Your task to perform on an android device: Go to CNN.com Image 0: 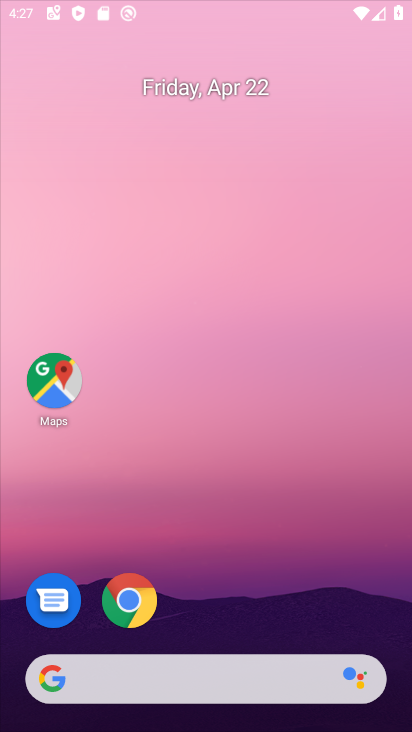
Step 0: press home button
Your task to perform on an android device: Go to CNN.com Image 1: 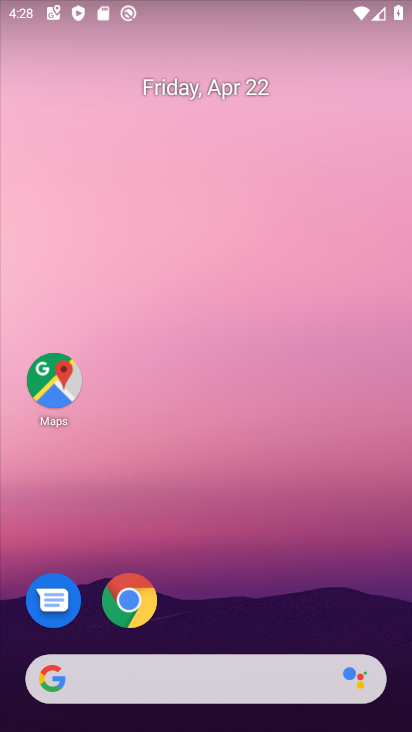
Step 1: drag from (194, 710) to (210, 123)
Your task to perform on an android device: Go to CNN.com Image 2: 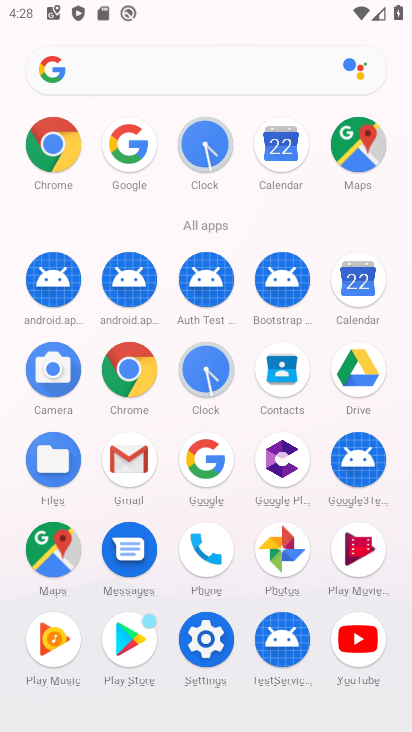
Step 2: click (214, 461)
Your task to perform on an android device: Go to CNN.com Image 3: 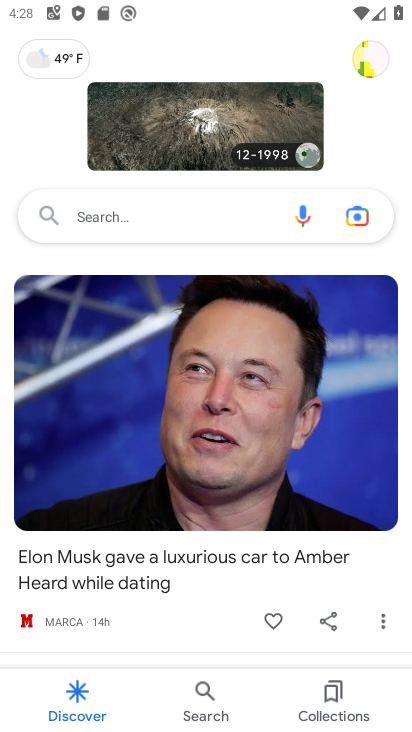
Step 3: drag from (193, 424) to (211, 75)
Your task to perform on an android device: Go to CNN.com Image 4: 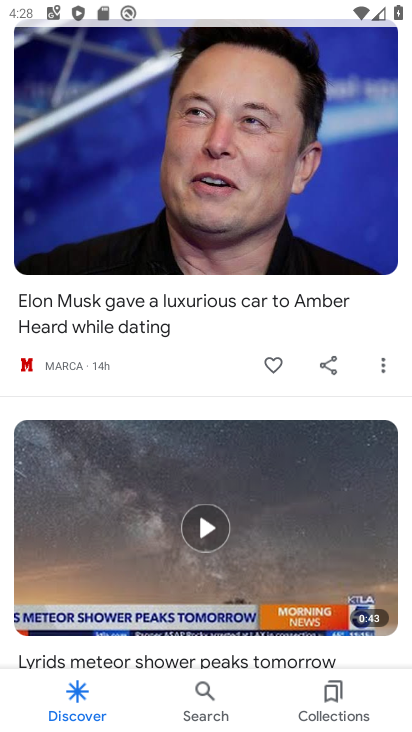
Step 4: drag from (117, 224) to (136, 589)
Your task to perform on an android device: Go to CNN.com Image 5: 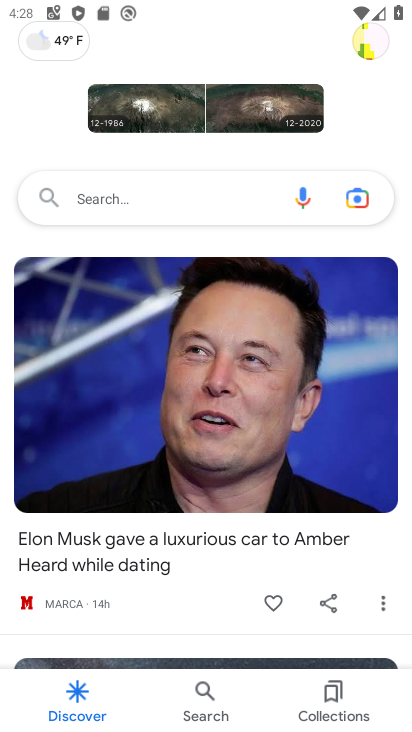
Step 5: click (180, 209)
Your task to perform on an android device: Go to CNN.com Image 6: 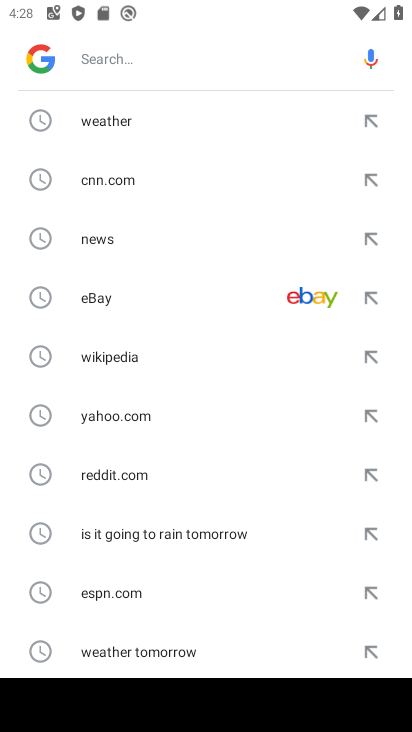
Step 6: type "cnn.com"
Your task to perform on an android device: Go to CNN.com Image 7: 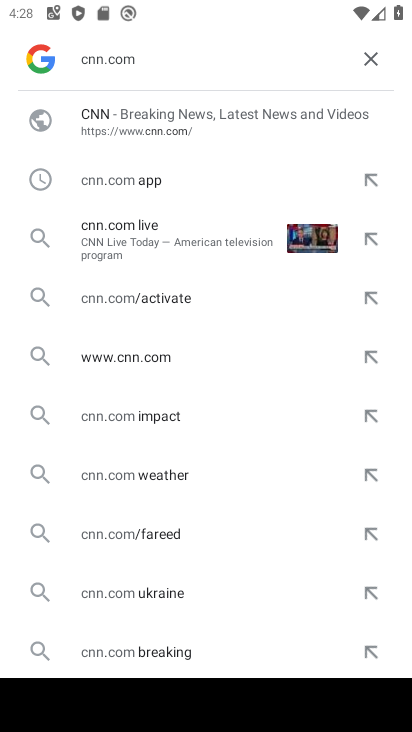
Step 7: click (140, 354)
Your task to perform on an android device: Go to CNN.com Image 8: 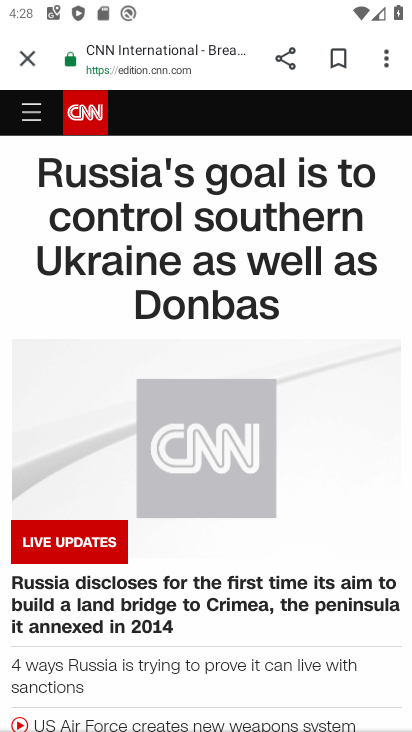
Step 8: task complete